Your task to perform on an android device: Open settings Image 0: 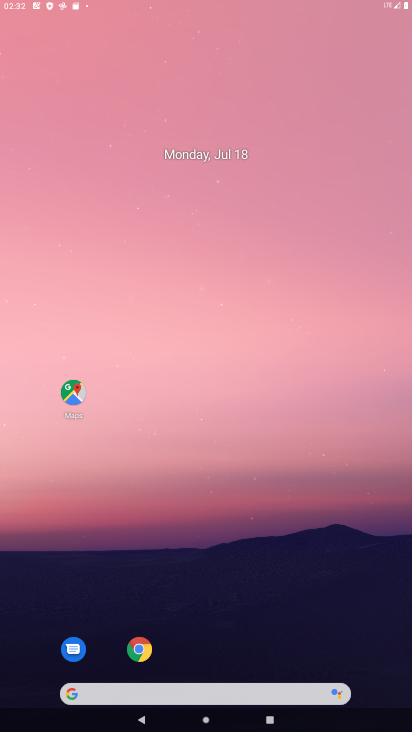
Step 0: drag from (175, 614) to (294, 2)
Your task to perform on an android device: Open settings Image 1: 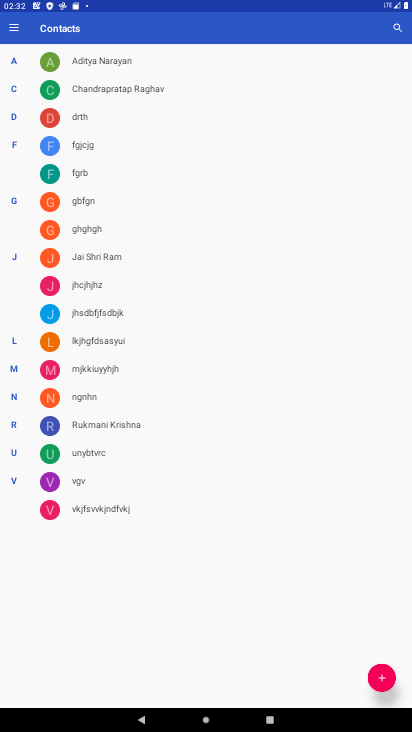
Step 1: press home button
Your task to perform on an android device: Open settings Image 2: 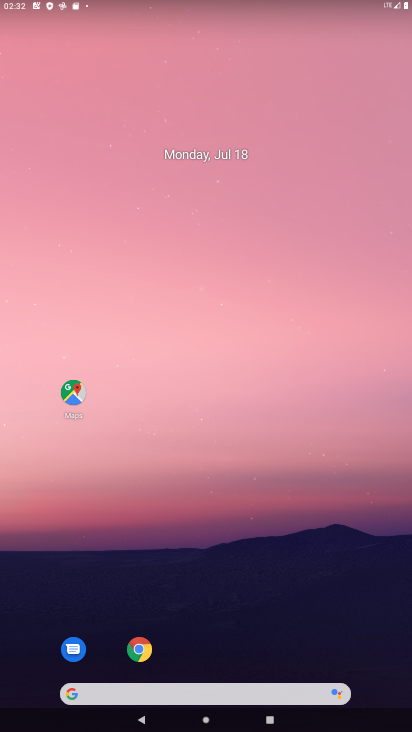
Step 2: drag from (169, 728) to (150, 17)
Your task to perform on an android device: Open settings Image 3: 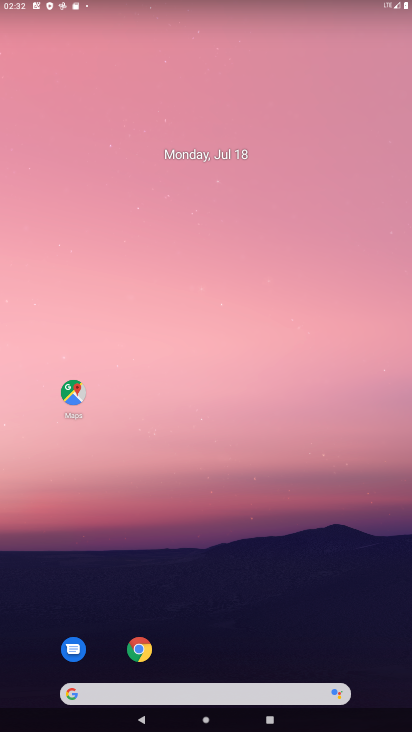
Step 3: drag from (164, 712) to (320, 9)
Your task to perform on an android device: Open settings Image 4: 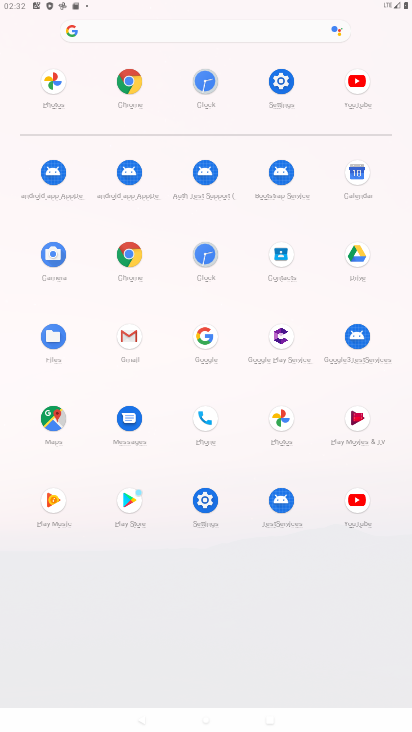
Step 4: click (276, 83)
Your task to perform on an android device: Open settings Image 5: 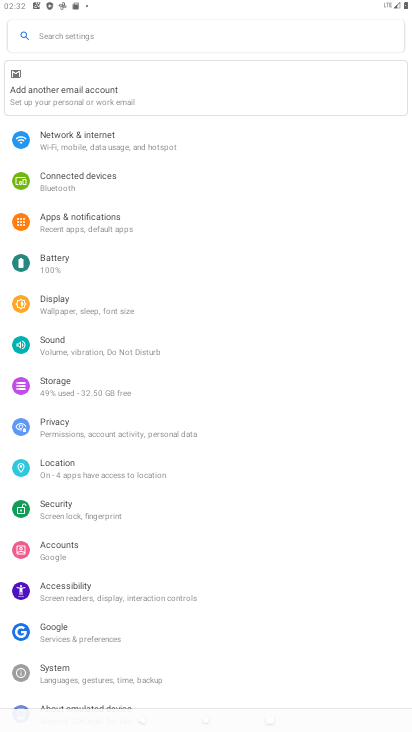
Step 5: task complete